Your task to perform on an android device: Show me popular games on the Play Store Image 0: 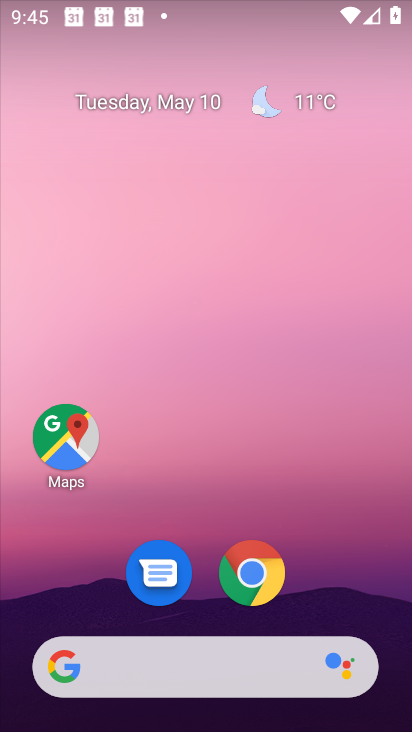
Step 0: drag from (336, 551) to (340, 120)
Your task to perform on an android device: Show me popular games on the Play Store Image 1: 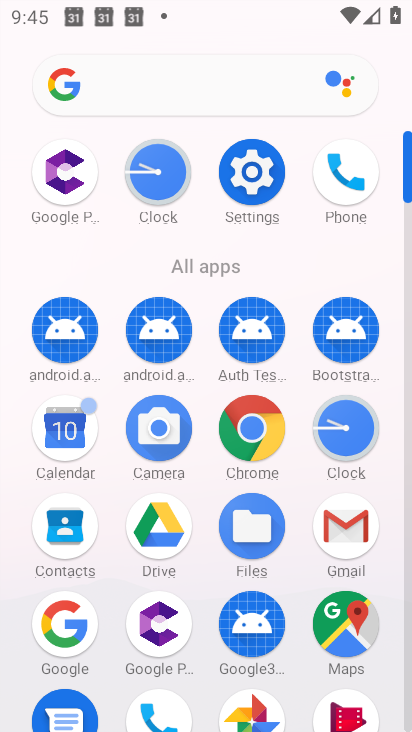
Step 1: drag from (287, 650) to (304, 283)
Your task to perform on an android device: Show me popular games on the Play Store Image 2: 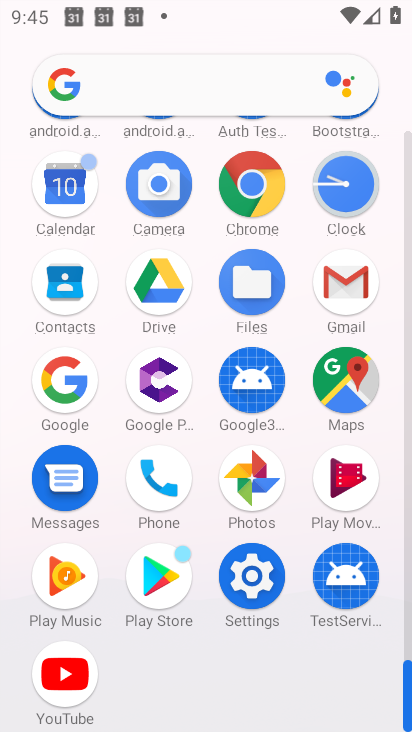
Step 2: click (163, 591)
Your task to perform on an android device: Show me popular games on the Play Store Image 3: 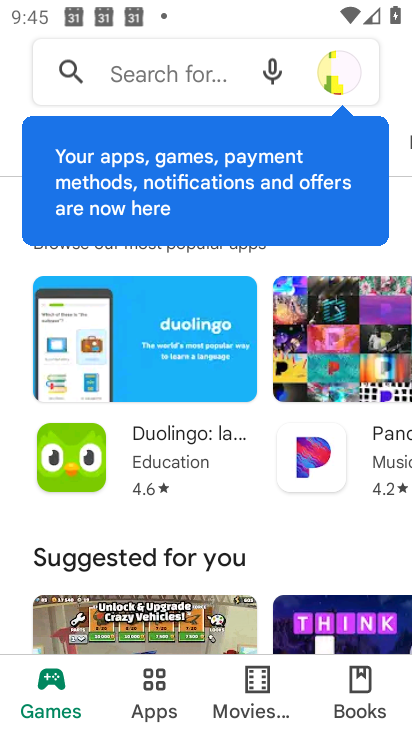
Step 3: drag from (266, 551) to (242, 153)
Your task to perform on an android device: Show me popular games on the Play Store Image 4: 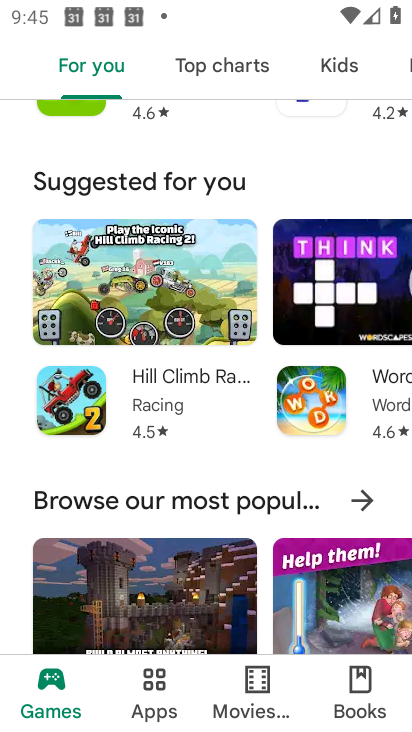
Step 4: click (272, 503)
Your task to perform on an android device: Show me popular games on the Play Store Image 5: 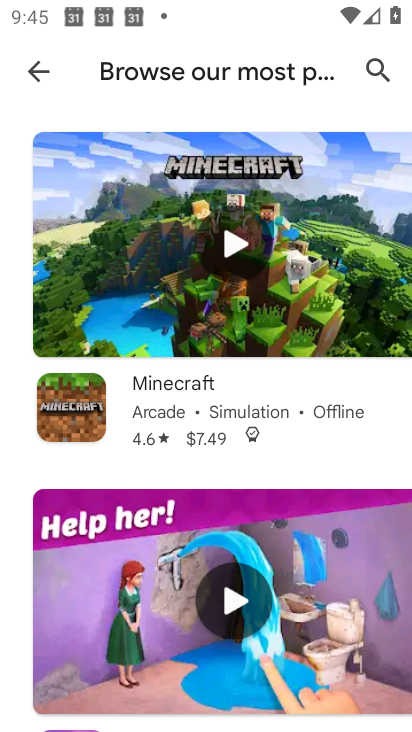
Step 5: task complete